Your task to perform on an android device: check android version Image 0: 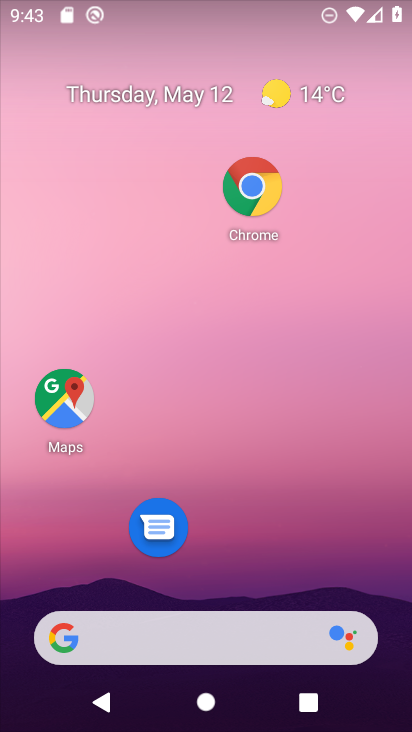
Step 0: drag from (310, 581) to (322, 209)
Your task to perform on an android device: check android version Image 1: 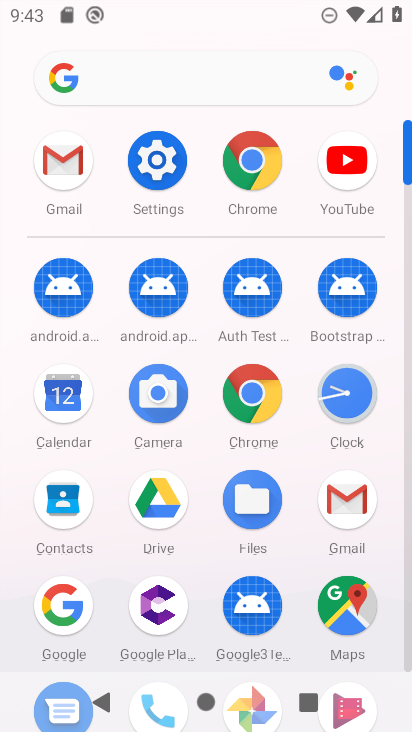
Step 1: click (155, 175)
Your task to perform on an android device: check android version Image 2: 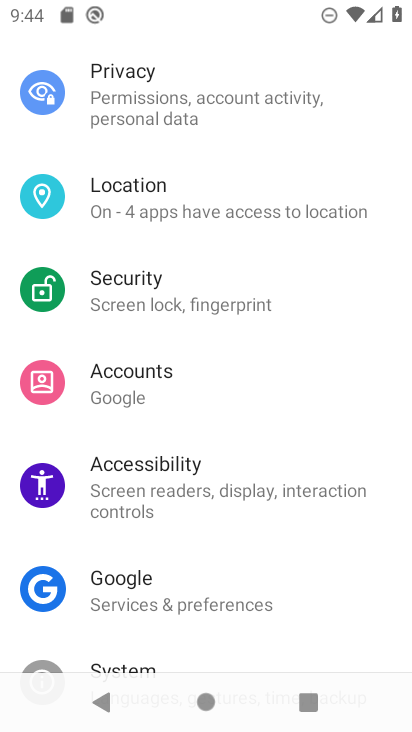
Step 2: drag from (108, 524) to (155, 173)
Your task to perform on an android device: check android version Image 3: 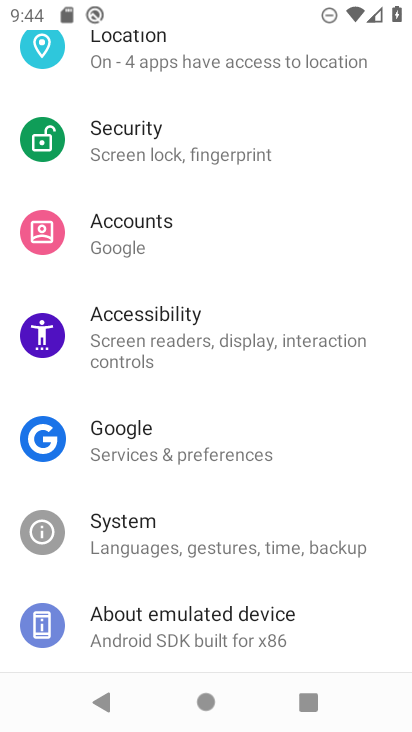
Step 3: click (185, 605)
Your task to perform on an android device: check android version Image 4: 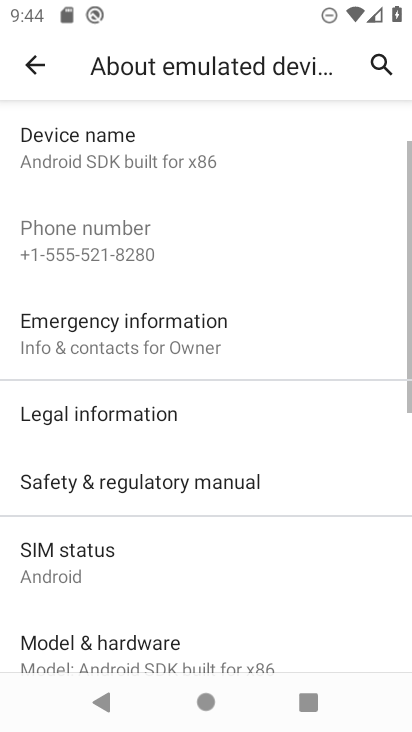
Step 4: drag from (181, 523) to (228, 337)
Your task to perform on an android device: check android version Image 5: 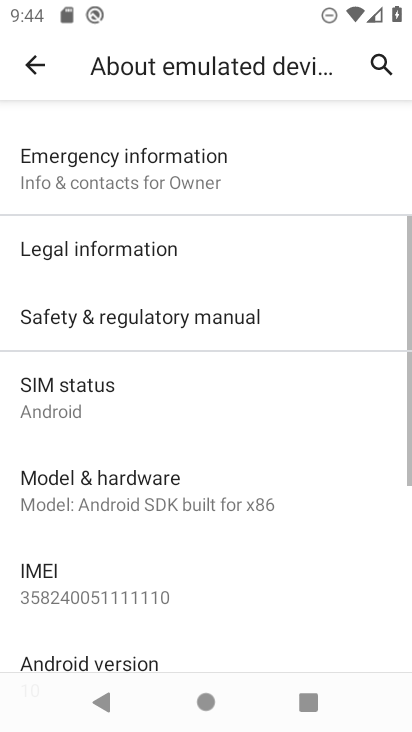
Step 5: drag from (195, 599) to (205, 463)
Your task to perform on an android device: check android version Image 6: 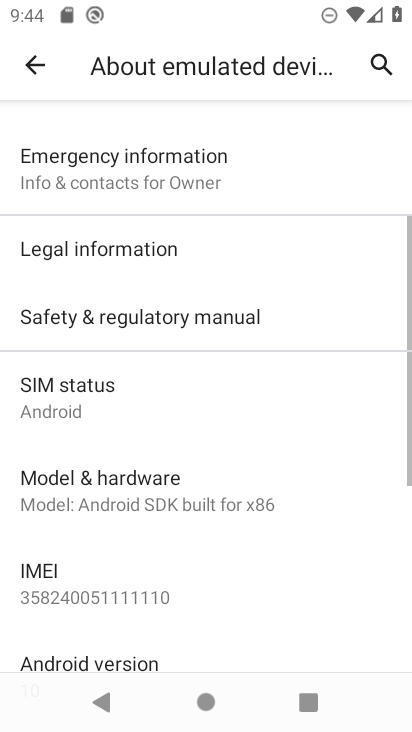
Step 6: drag from (194, 527) to (209, 321)
Your task to perform on an android device: check android version Image 7: 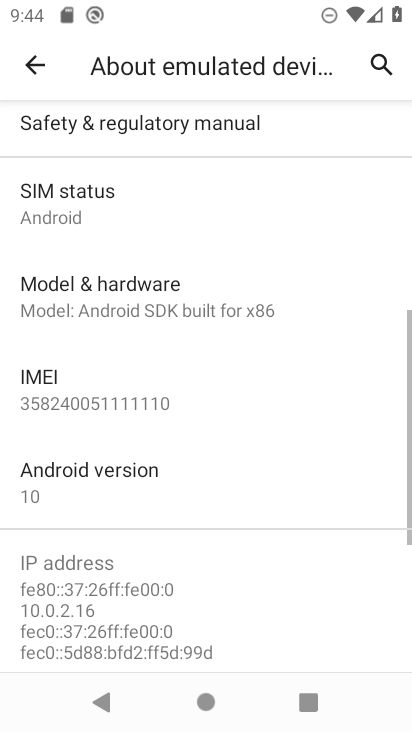
Step 7: click (198, 483)
Your task to perform on an android device: check android version Image 8: 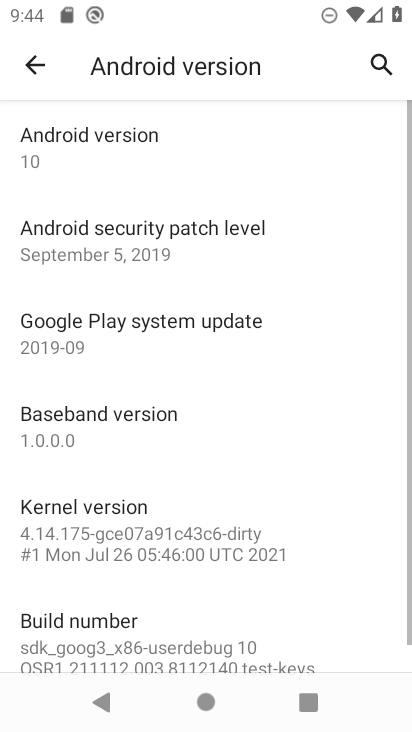
Step 8: task complete